Your task to perform on an android device: clear all cookies in the chrome app Image 0: 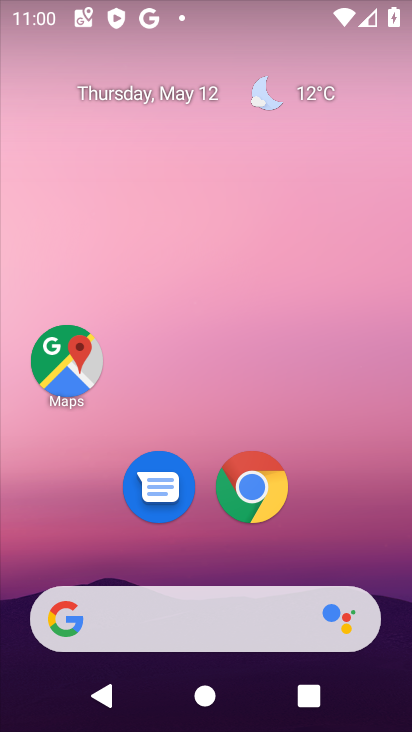
Step 0: click (247, 495)
Your task to perform on an android device: clear all cookies in the chrome app Image 1: 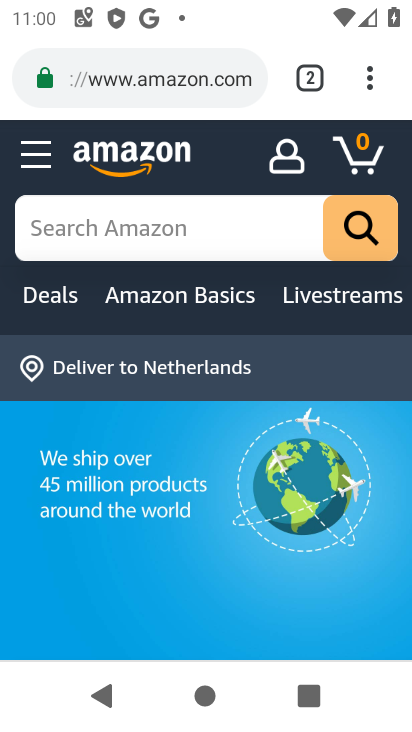
Step 1: click (372, 76)
Your task to perform on an android device: clear all cookies in the chrome app Image 2: 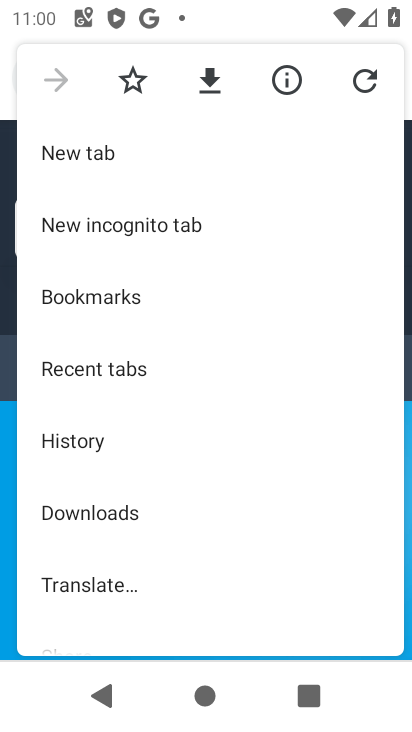
Step 2: drag from (186, 495) to (181, 72)
Your task to perform on an android device: clear all cookies in the chrome app Image 3: 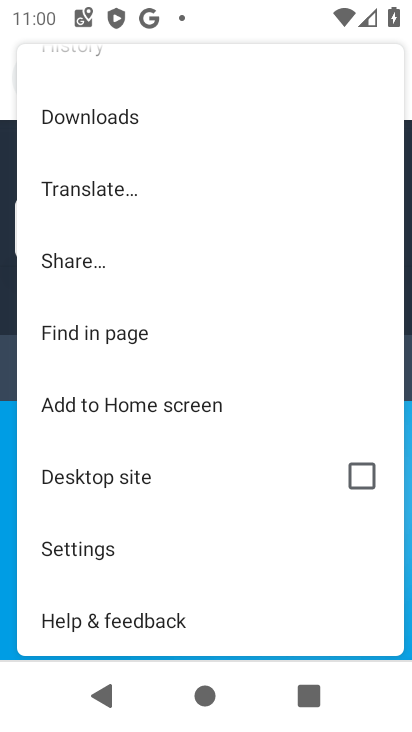
Step 3: drag from (147, 514) to (142, 102)
Your task to perform on an android device: clear all cookies in the chrome app Image 4: 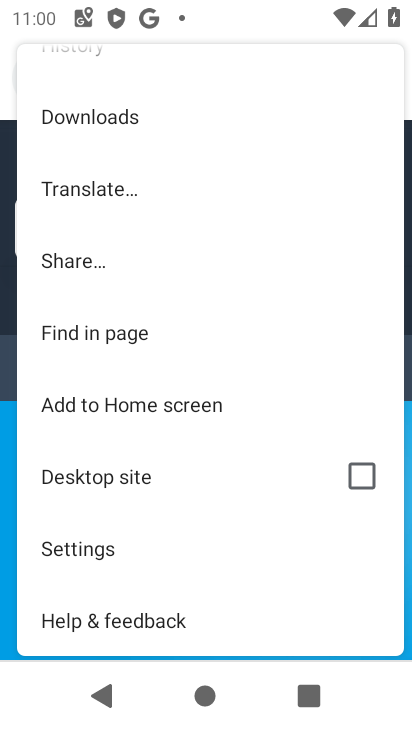
Step 4: click (69, 551)
Your task to perform on an android device: clear all cookies in the chrome app Image 5: 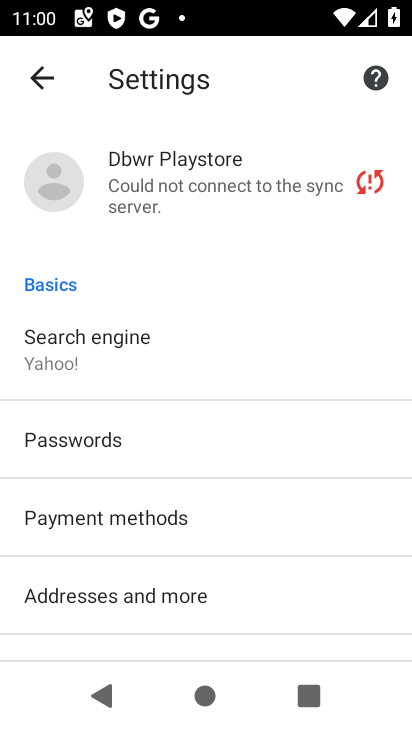
Step 5: drag from (192, 518) to (173, 145)
Your task to perform on an android device: clear all cookies in the chrome app Image 6: 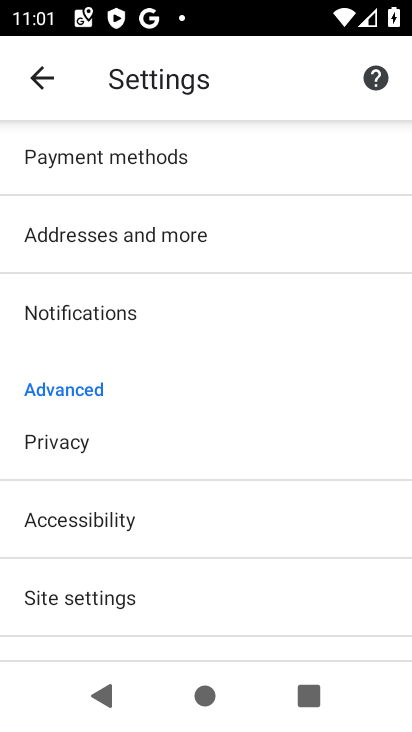
Step 6: click (52, 442)
Your task to perform on an android device: clear all cookies in the chrome app Image 7: 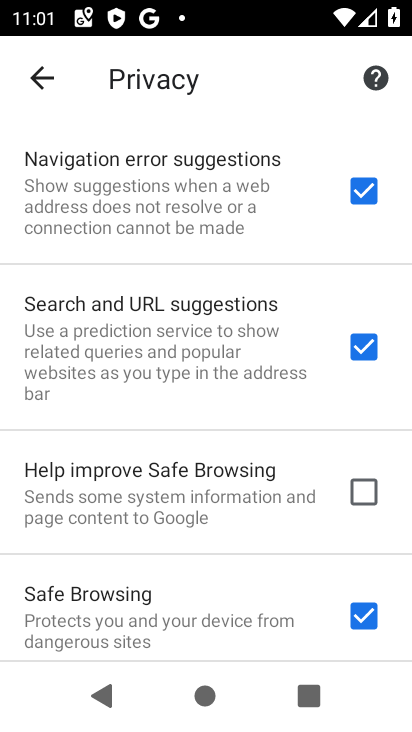
Step 7: drag from (144, 588) to (119, 182)
Your task to perform on an android device: clear all cookies in the chrome app Image 8: 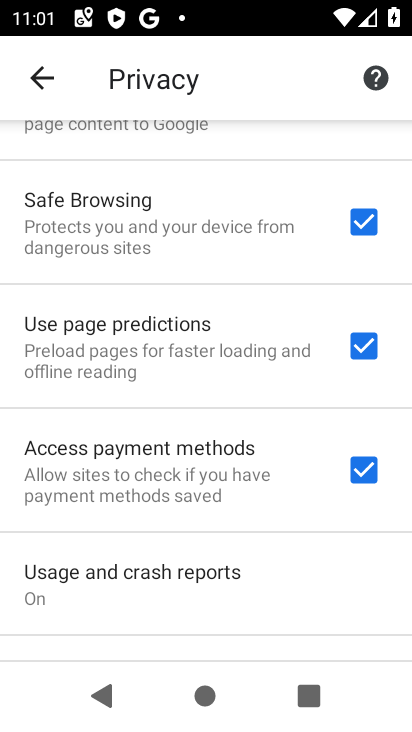
Step 8: drag from (115, 517) to (132, 117)
Your task to perform on an android device: clear all cookies in the chrome app Image 9: 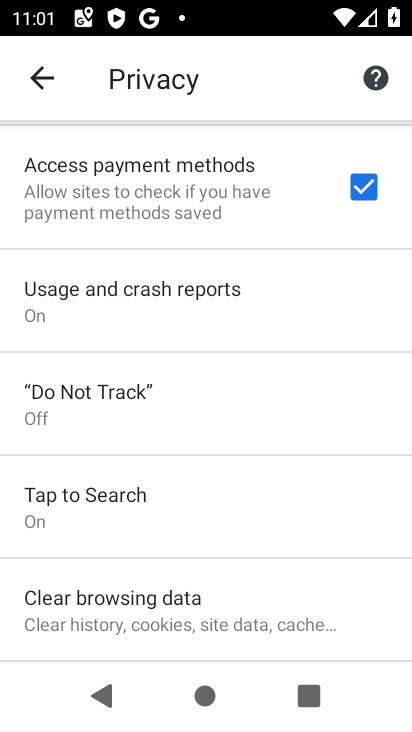
Step 9: drag from (169, 476) to (158, 191)
Your task to perform on an android device: clear all cookies in the chrome app Image 10: 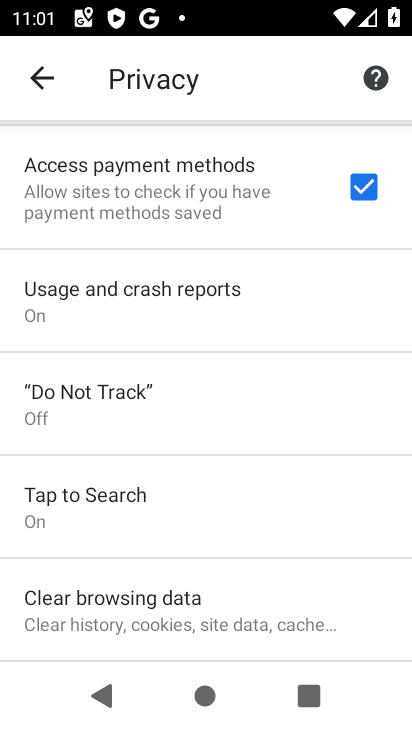
Step 10: click (114, 610)
Your task to perform on an android device: clear all cookies in the chrome app Image 11: 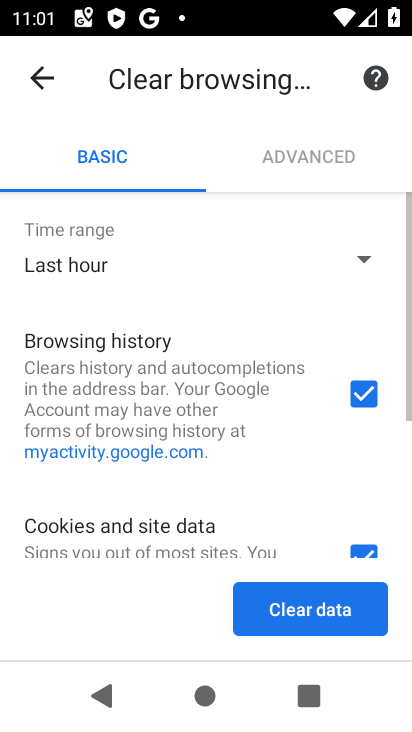
Step 11: click (369, 394)
Your task to perform on an android device: clear all cookies in the chrome app Image 12: 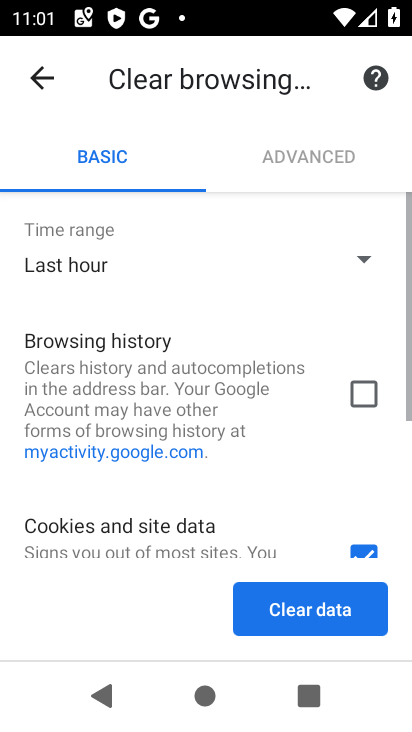
Step 12: drag from (165, 488) to (190, 185)
Your task to perform on an android device: clear all cookies in the chrome app Image 13: 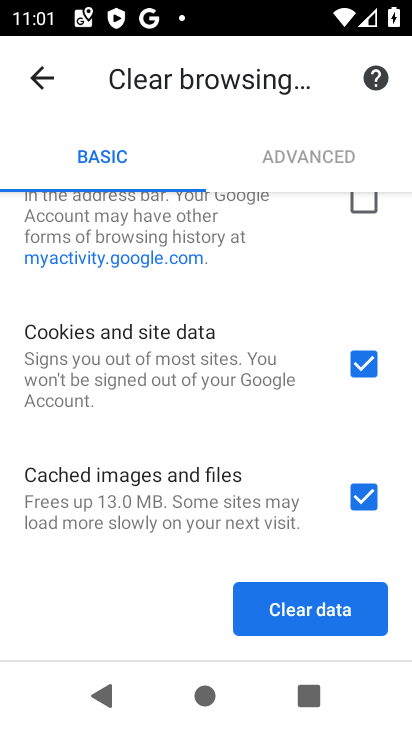
Step 13: click (362, 504)
Your task to perform on an android device: clear all cookies in the chrome app Image 14: 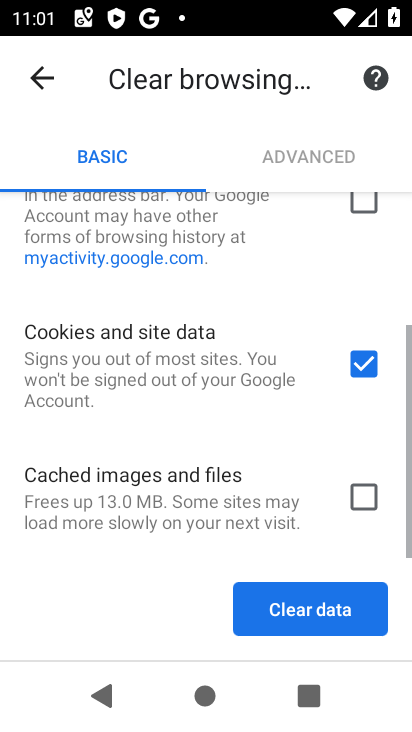
Step 14: click (333, 607)
Your task to perform on an android device: clear all cookies in the chrome app Image 15: 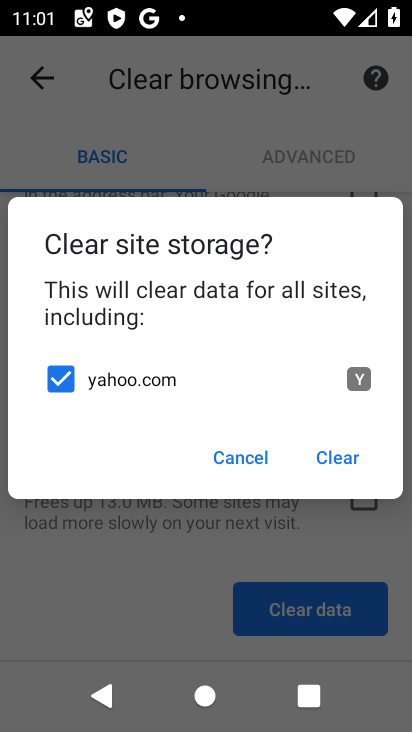
Step 15: click (323, 461)
Your task to perform on an android device: clear all cookies in the chrome app Image 16: 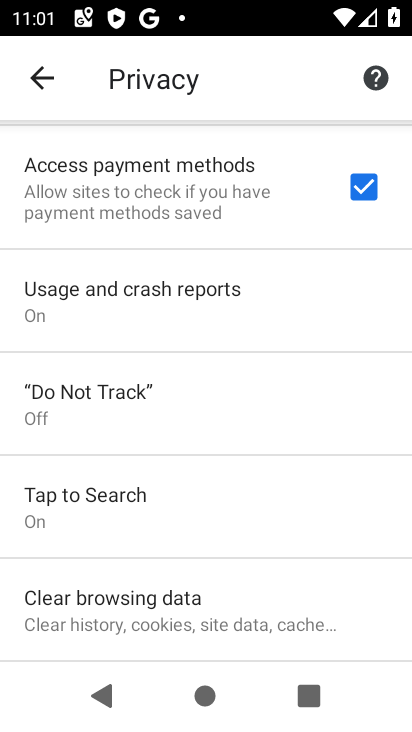
Step 16: task complete